Your task to perform on an android device: clear all cookies in the chrome app Image 0: 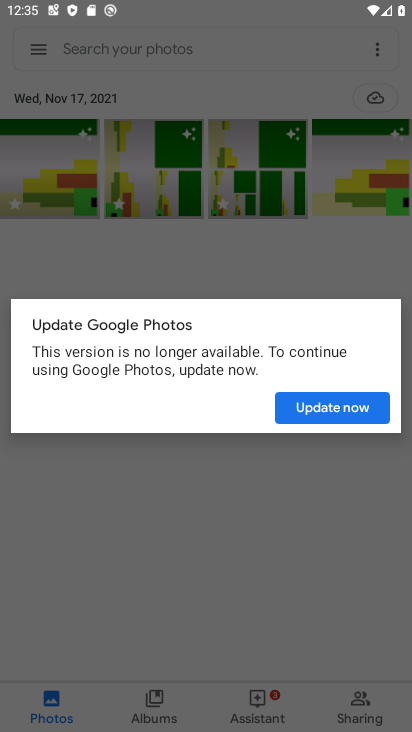
Step 0: press home button
Your task to perform on an android device: clear all cookies in the chrome app Image 1: 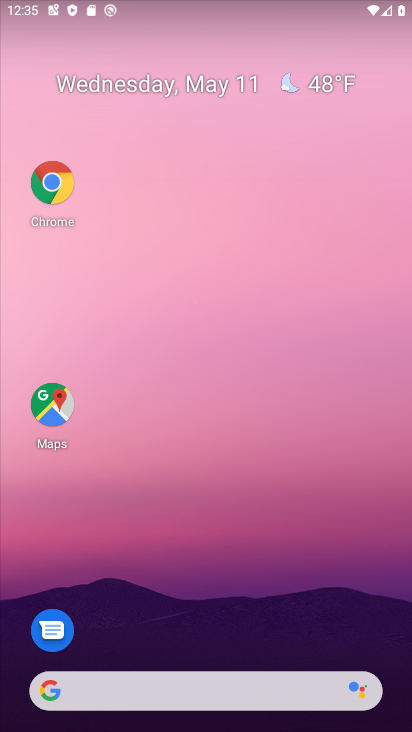
Step 1: drag from (221, 679) to (237, 0)
Your task to perform on an android device: clear all cookies in the chrome app Image 2: 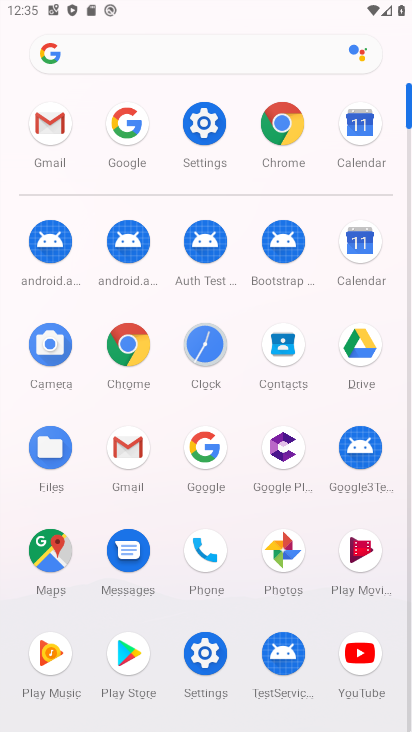
Step 2: click (276, 124)
Your task to perform on an android device: clear all cookies in the chrome app Image 3: 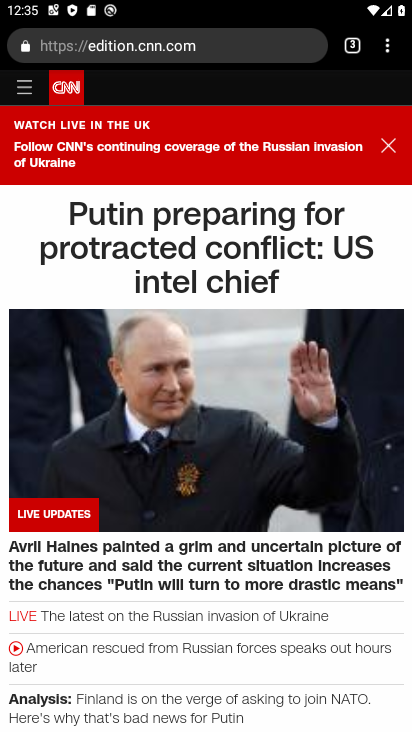
Step 3: click (389, 49)
Your task to perform on an android device: clear all cookies in the chrome app Image 4: 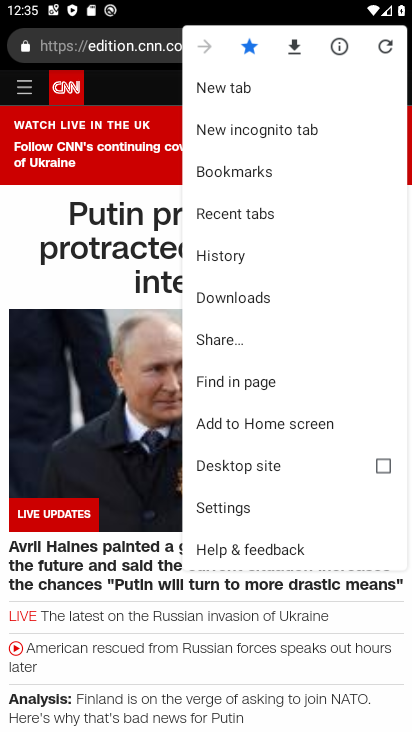
Step 4: click (239, 503)
Your task to perform on an android device: clear all cookies in the chrome app Image 5: 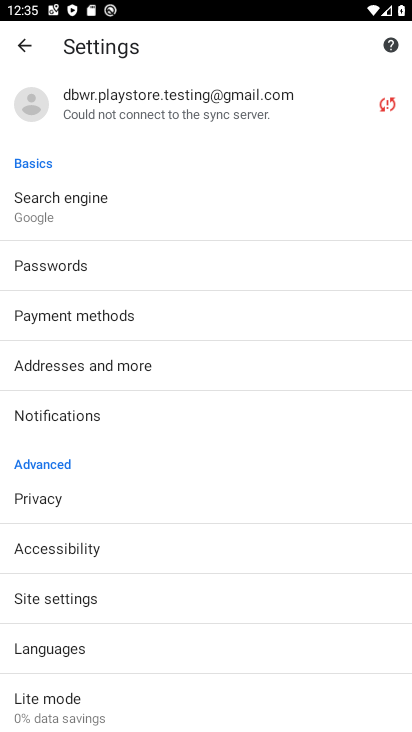
Step 5: click (81, 490)
Your task to perform on an android device: clear all cookies in the chrome app Image 6: 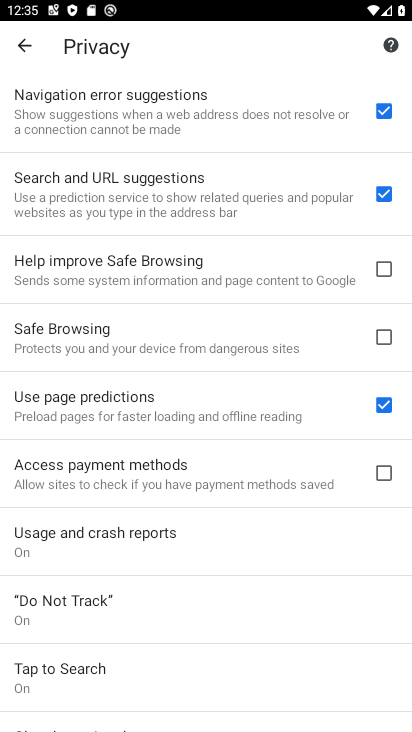
Step 6: drag from (133, 600) to (121, 85)
Your task to perform on an android device: clear all cookies in the chrome app Image 7: 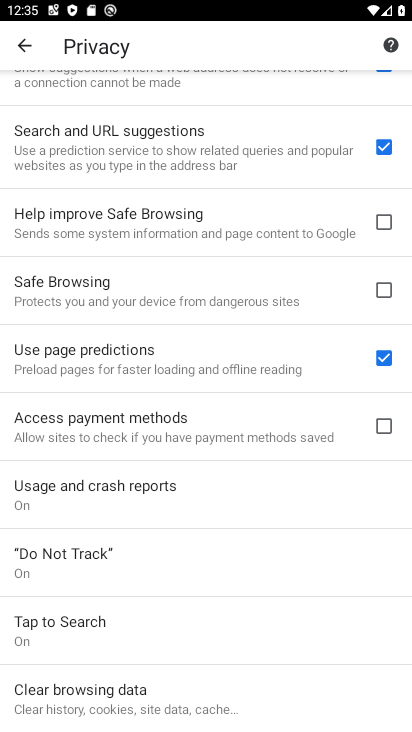
Step 7: click (136, 680)
Your task to perform on an android device: clear all cookies in the chrome app Image 8: 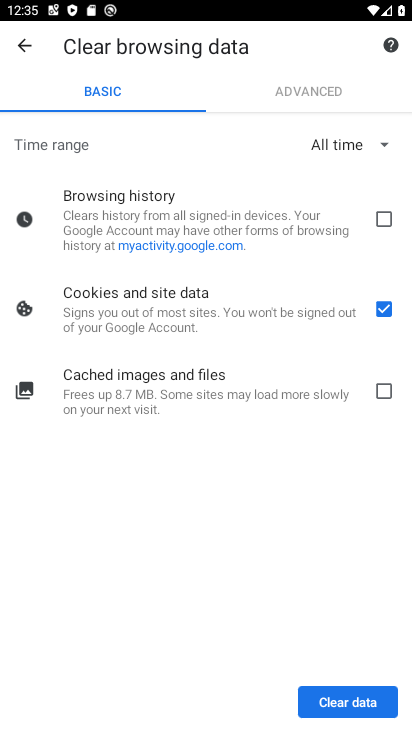
Step 8: click (195, 362)
Your task to perform on an android device: clear all cookies in the chrome app Image 9: 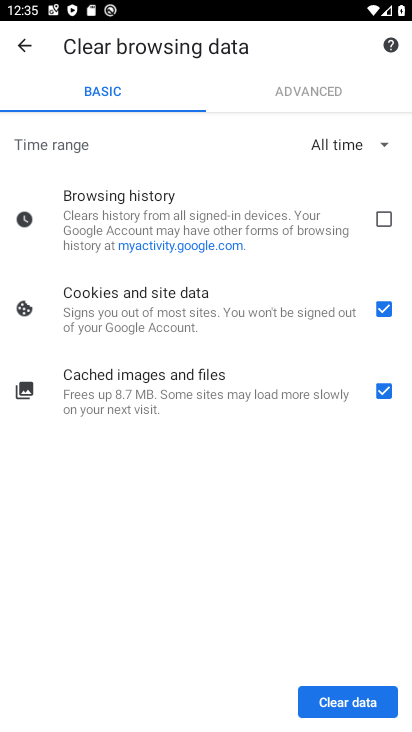
Step 9: click (350, 703)
Your task to perform on an android device: clear all cookies in the chrome app Image 10: 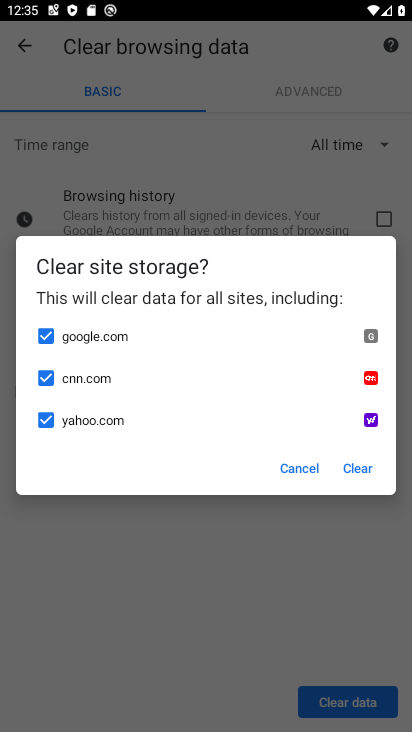
Step 10: click (360, 468)
Your task to perform on an android device: clear all cookies in the chrome app Image 11: 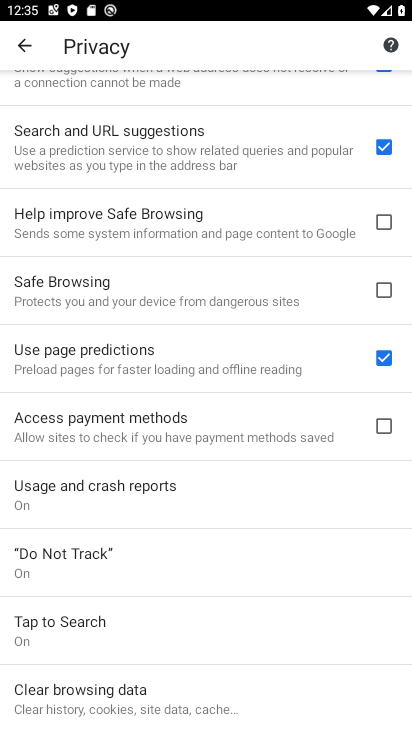
Step 11: task complete